Your task to perform on an android device: change the clock display to digital Image 0: 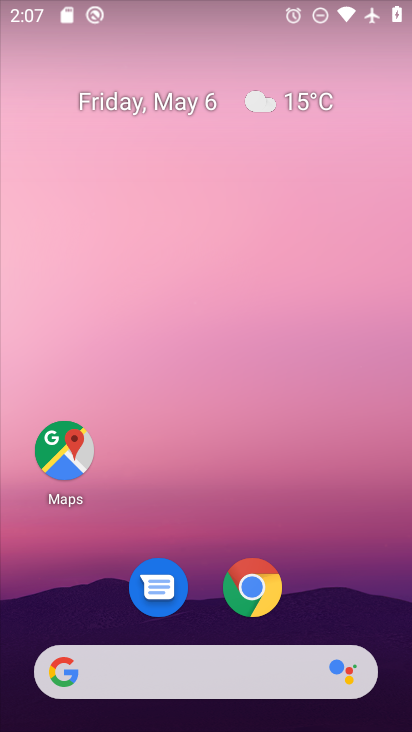
Step 0: drag from (340, 587) to (278, 37)
Your task to perform on an android device: change the clock display to digital Image 1: 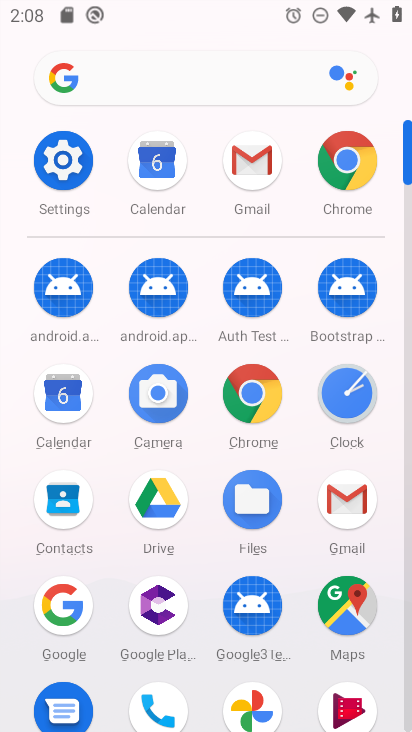
Step 1: click (348, 382)
Your task to perform on an android device: change the clock display to digital Image 2: 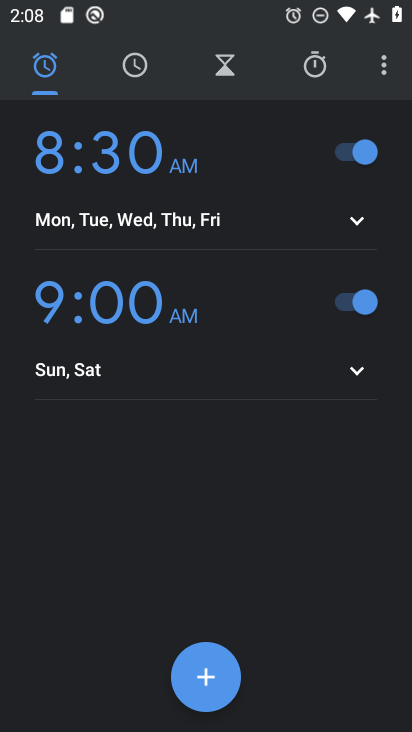
Step 2: click (380, 67)
Your task to perform on an android device: change the clock display to digital Image 3: 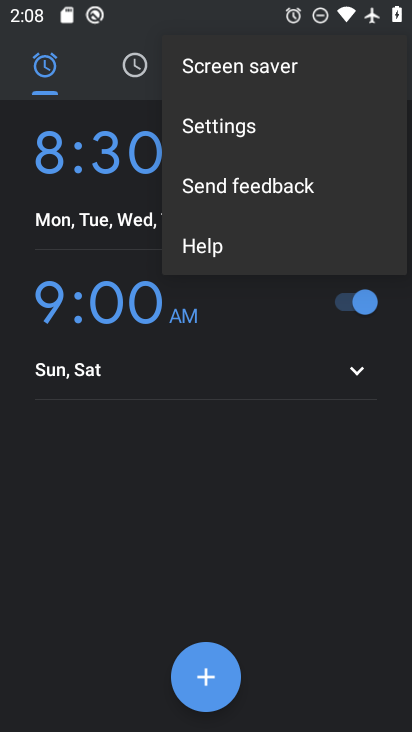
Step 3: click (216, 126)
Your task to perform on an android device: change the clock display to digital Image 4: 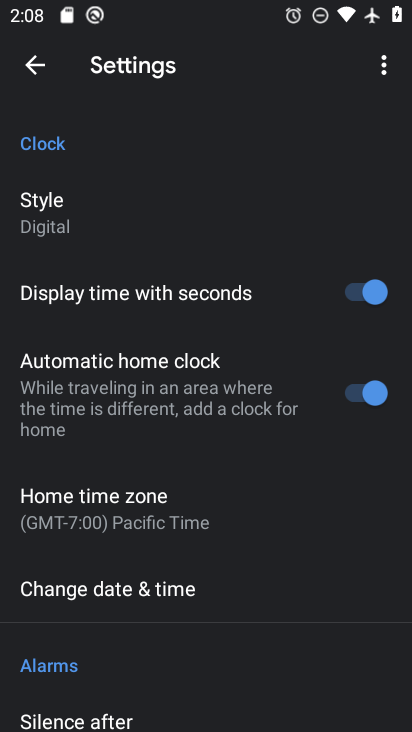
Step 4: click (131, 200)
Your task to perform on an android device: change the clock display to digital Image 5: 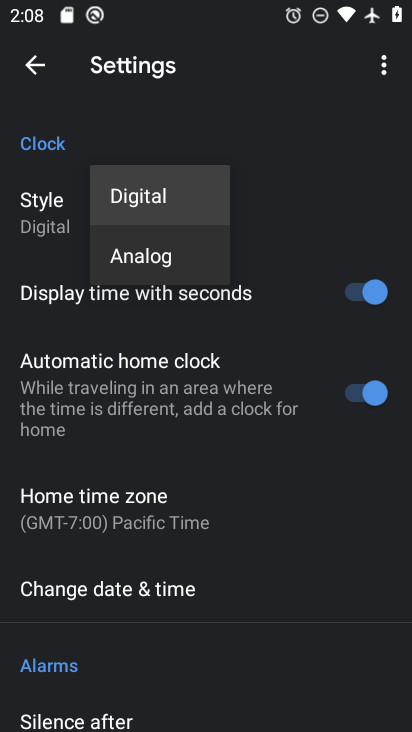
Step 5: task complete